Your task to perform on an android device: Open Chrome and go to the settings page Image 0: 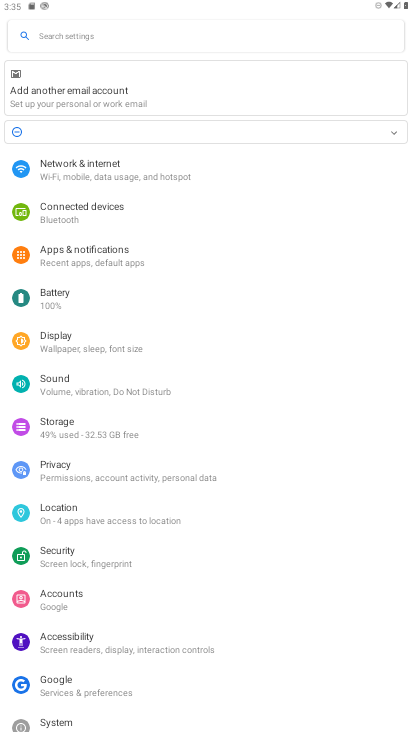
Step 0: press home button
Your task to perform on an android device: Open Chrome and go to the settings page Image 1: 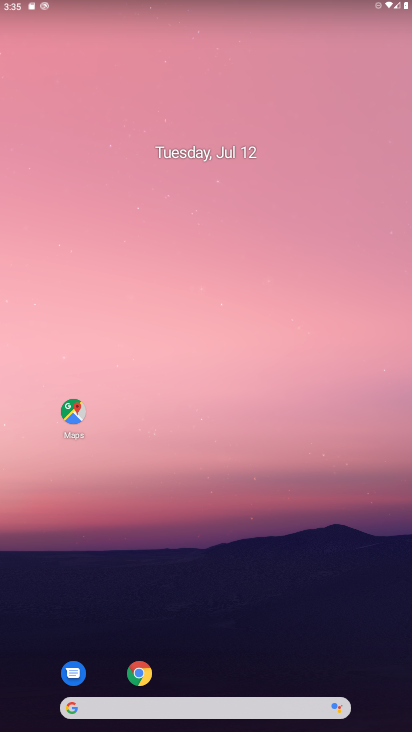
Step 1: click (139, 674)
Your task to perform on an android device: Open Chrome and go to the settings page Image 2: 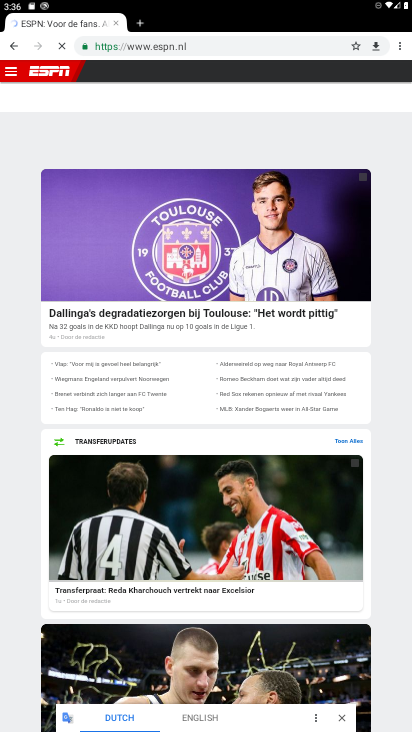
Step 2: click (400, 45)
Your task to perform on an android device: Open Chrome and go to the settings page Image 3: 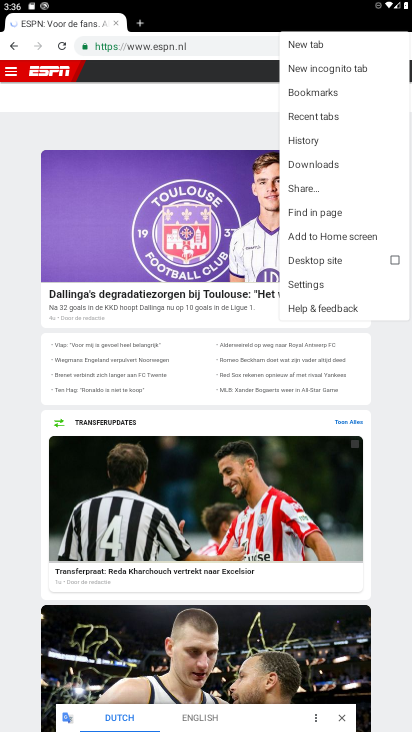
Step 3: click (304, 282)
Your task to perform on an android device: Open Chrome and go to the settings page Image 4: 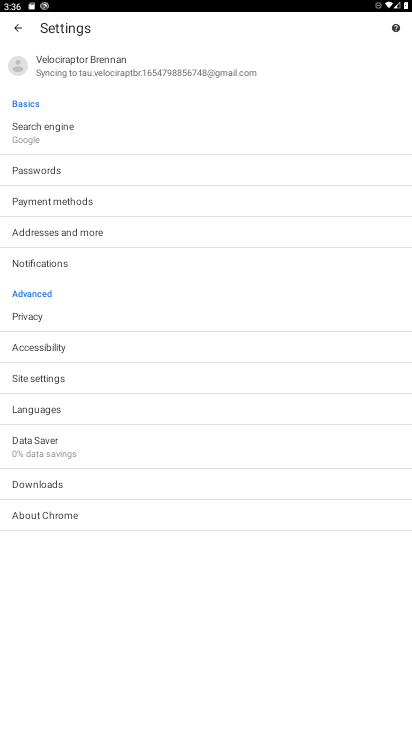
Step 4: task complete